Your task to perform on an android device: Show me productivity apps on the Play Store Image 0: 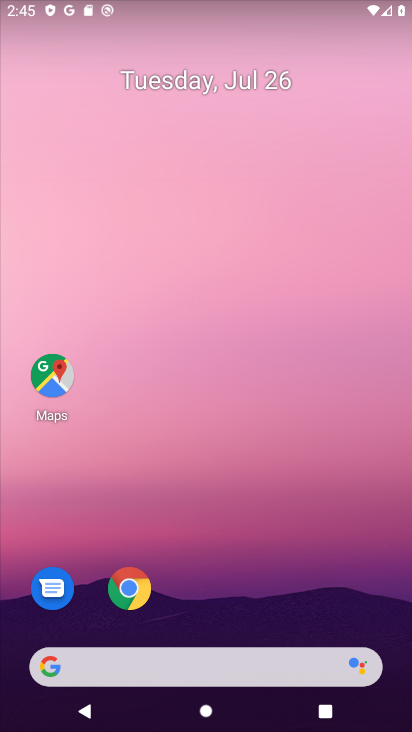
Step 0: drag from (281, 591) to (237, 126)
Your task to perform on an android device: Show me productivity apps on the Play Store Image 1: 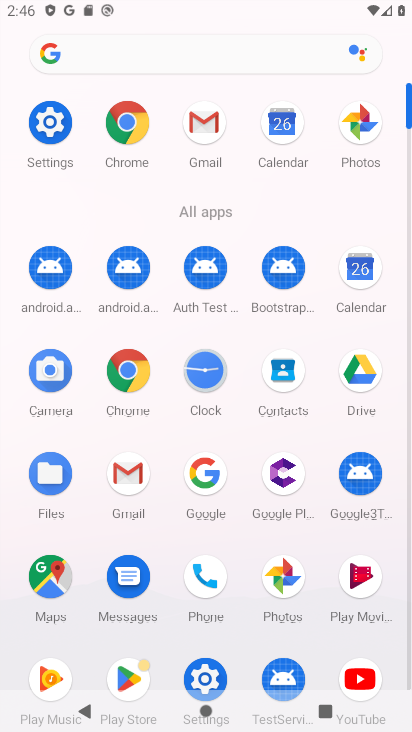
Step 1: click (128, 689)
Your task to perform on an android device: Show me productivity apps on the Play Store Image 2: 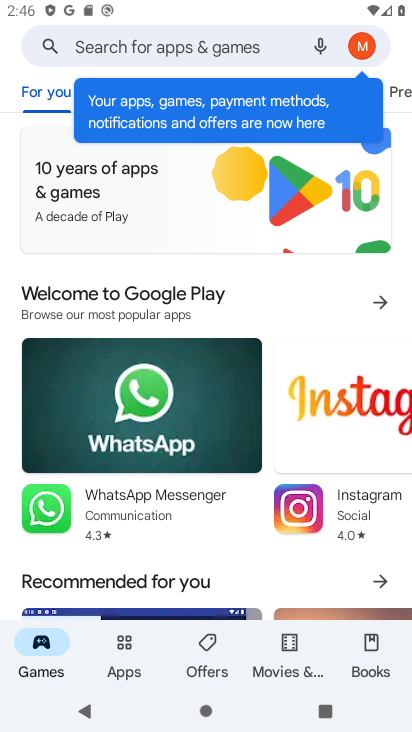
Step 2: click (113, 643)
Your task to perform on an android device: Show me productivity apps on the Play Store Image 3: 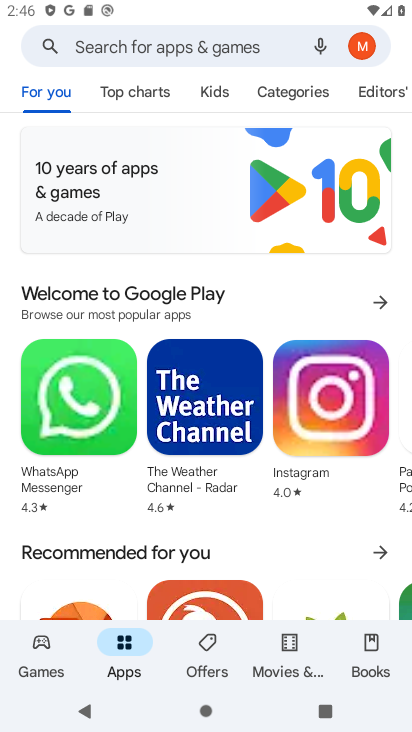
Step 3: click (311, 89)
Your task to perform on an android device: Show me productivity apps on the Play Store Image 4: 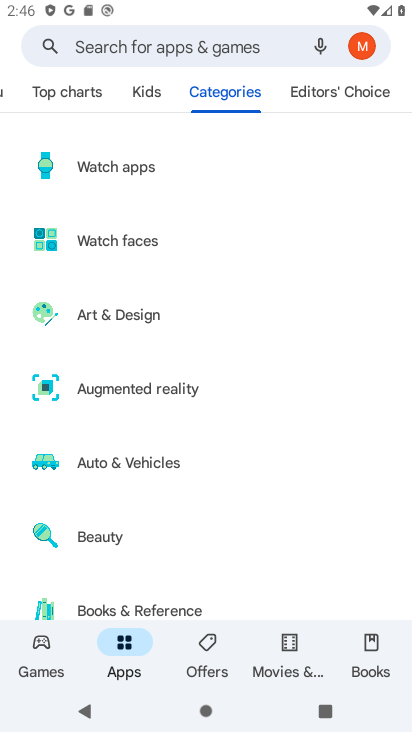
Step 4: drag from (257, 521) to (49, 28)
Your task to perform on an android device: Show me productivity apps on the Play Store Image 5: 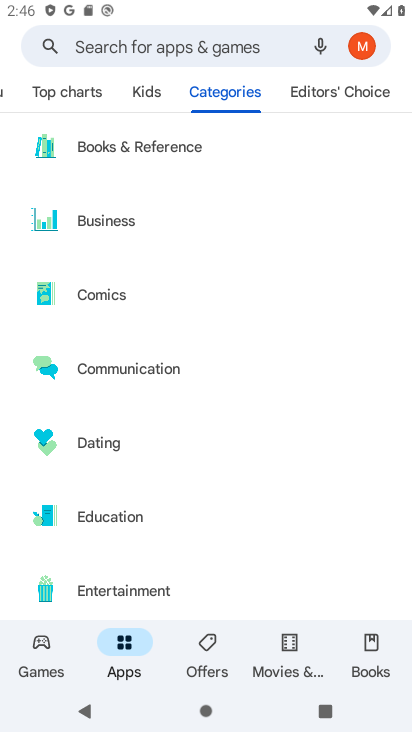
Step 5: drag from (111, 571) to (63, 212)
Your task to perform on an android device: Show me productivity apps on the Play Store Image 6: 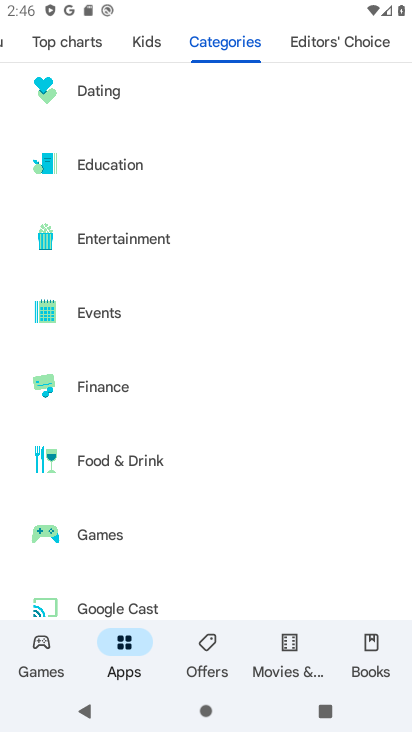
Step 6: drag from (117, 569) to (142, 51)
Your task to perform on an android device: Show me productivity apps on the Play Store Image 7: 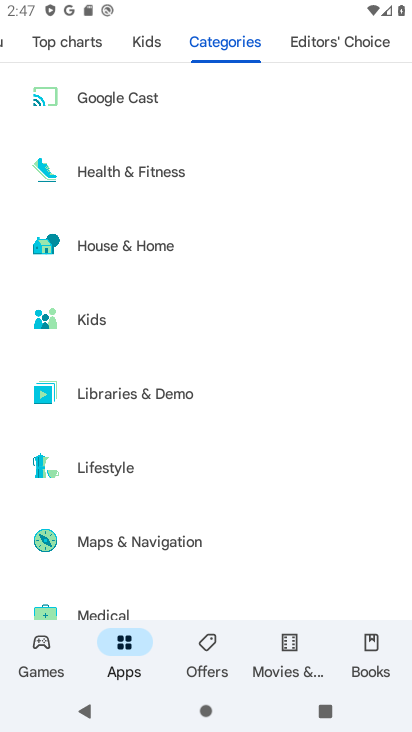
Step 7: drag from (131, 573) to (141, 6)
Your task to perform on an android device: Show me productivity apps on the Play Store Image 8: 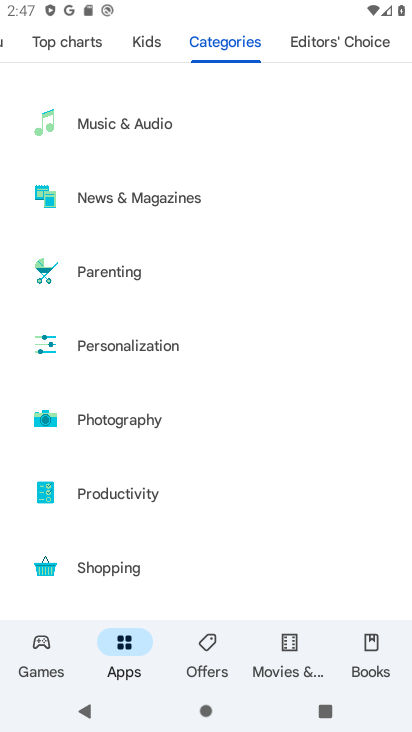
Step 8: click (138, 502)
Your task to perform on an android device: Show me productivity apps on the Play Store Image 9: 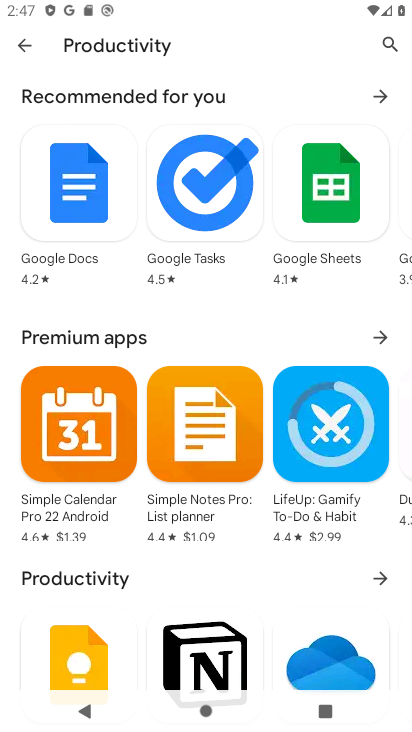
Step 9: task complete